Your task to perform on an android device: Open Youtube and go to "Your channel" Image 0: 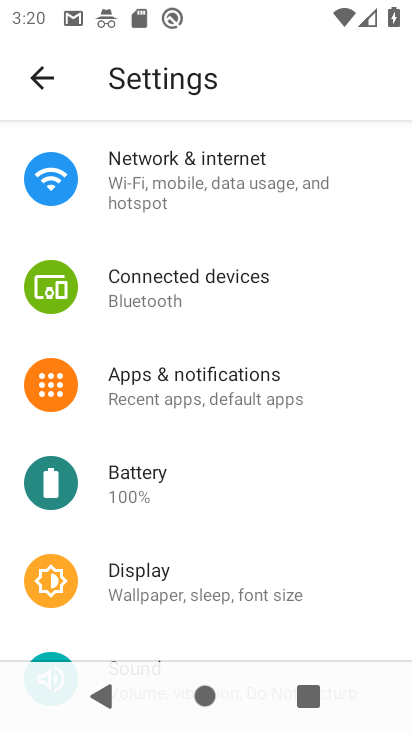
Step 0: press home button
Your task to perform on an android device: Open Youtube and go to "Your channel" Image 1: 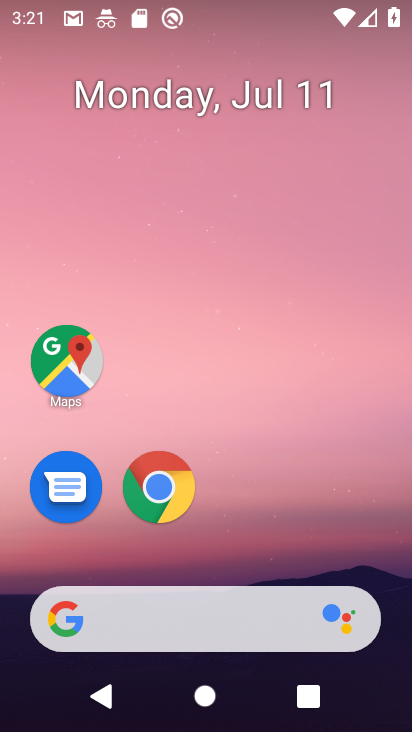
Step 1: drag from (160, 625) to (319, 3)
Your task to perform on an android device: Open Youtube and go to "Your channel" Image 2: 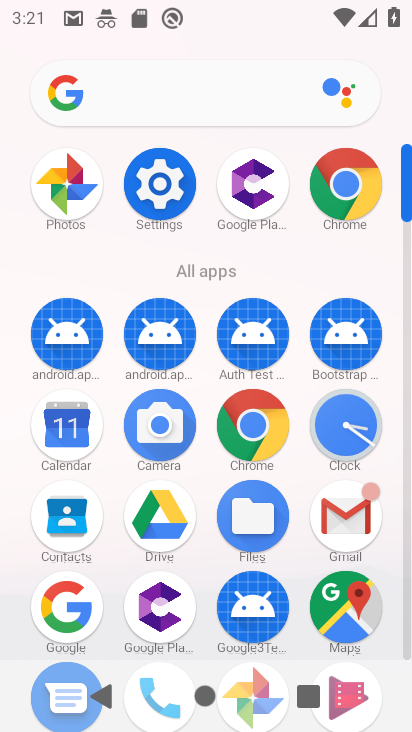
Step 2: drag from (190, 636) to (348, 98)
Your task to perform on an android device: Open Youtube and go to "Your channel" Image 3: 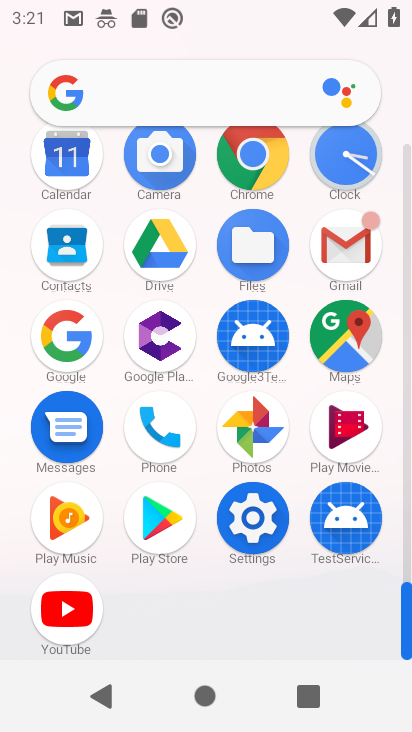
Step 3: click (72, 606)
Your task to perform on an android device: Open Youtube and go to "Your channel" Image 4: 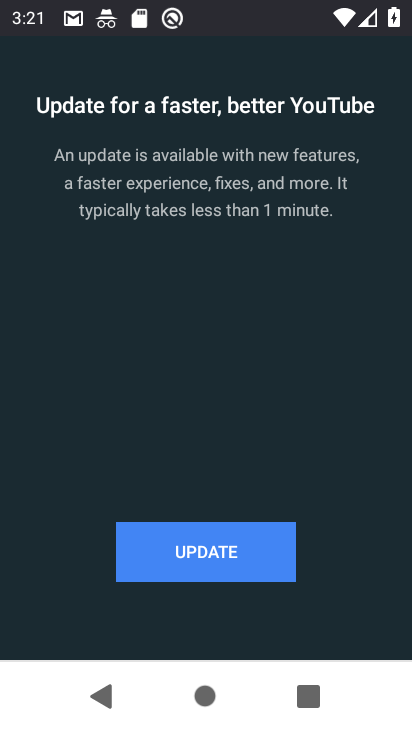
Step 4: click (221, 557)
Your task to perform on an android device: Open Youtube and go to "Your channel" Image 5: 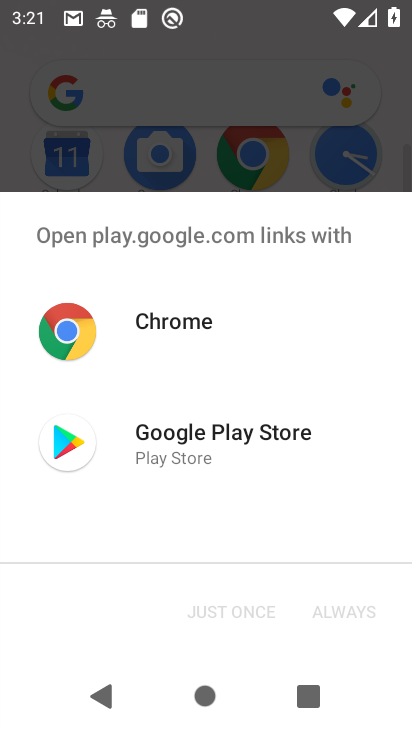
Step 5: click (187, 437)
Your task to perform on an android device: Open Youtube and go to "Your channel" Image 6: 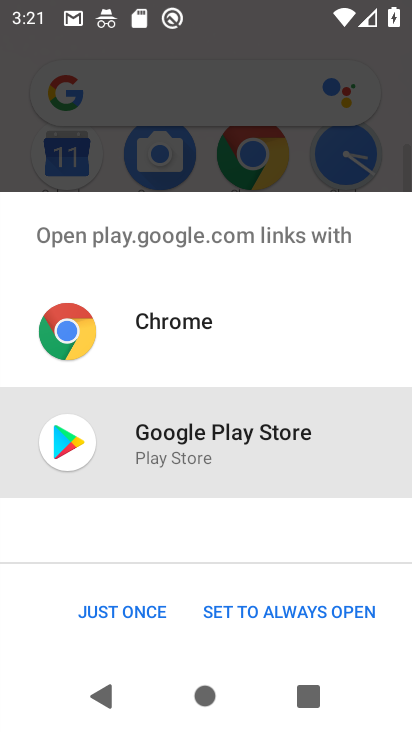
Step 6: click (143, 606)
Your task to perform on an android device: Open Youtube and go to "Your channel" Image 7: 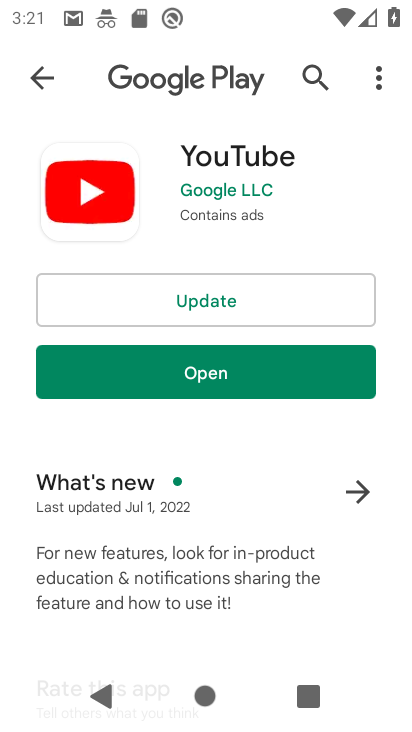
Step 7: click (207, 306)
Your task to perform on an android device: Open Youtube and go to "Your channel" Image 8: 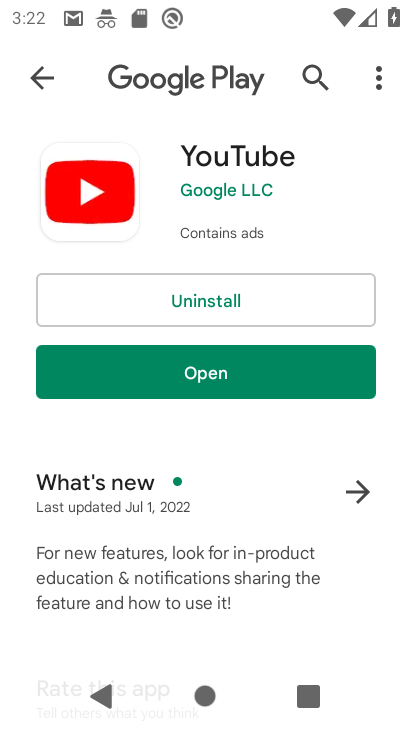
Step 8: click (201, 369)
Your task to perform on an android device: Open Youtube and go to "Your channel" Image 9: 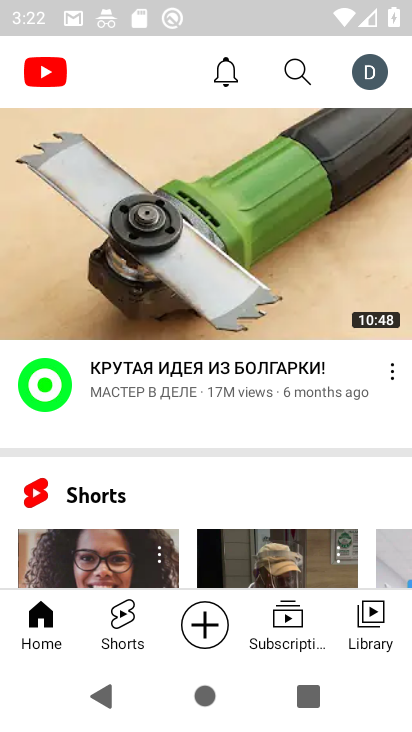
Step 9: click (367, 71)
Your task to perform on an android device: Open Youtube and go to "Your channel" Image 10: 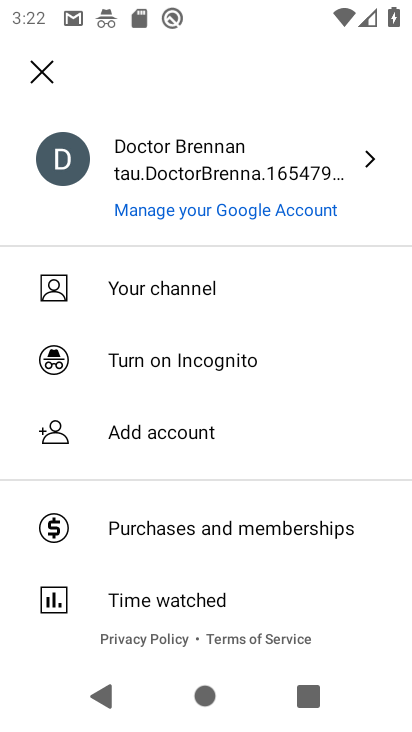
Step 10: click (174, 295)
Your task to perform on an android device: Open Youtube and go to "Your channel" Image 11: 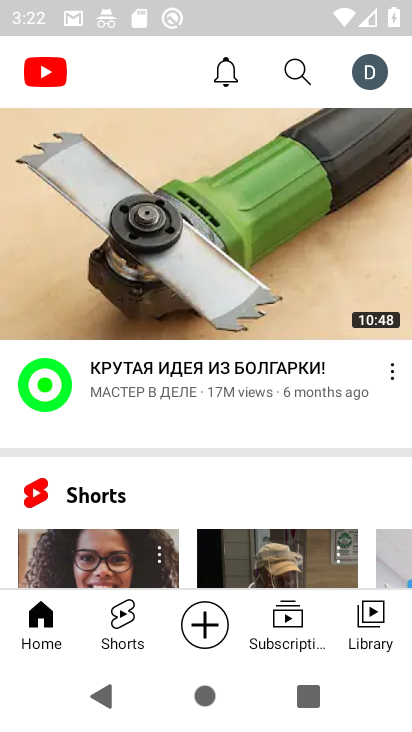
Step 11: click (366, 72)
Your task to perform on an android device: Open Youtube and go to "Your channel" Image 12: 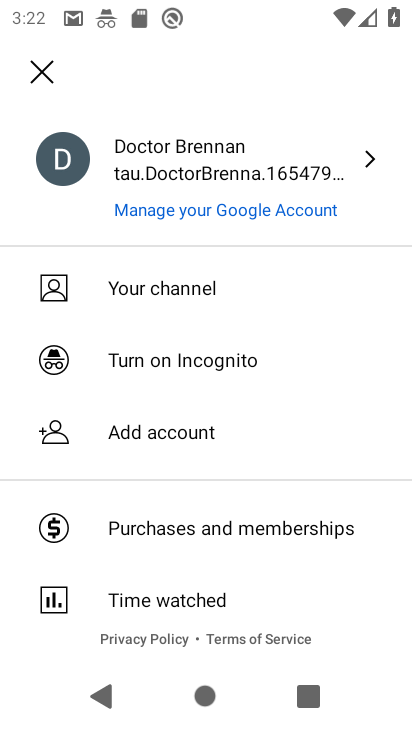
Step 12: click (170, 286)
Your task to perform on an android device: Open Youtube and go to "Your channel" Image 13: 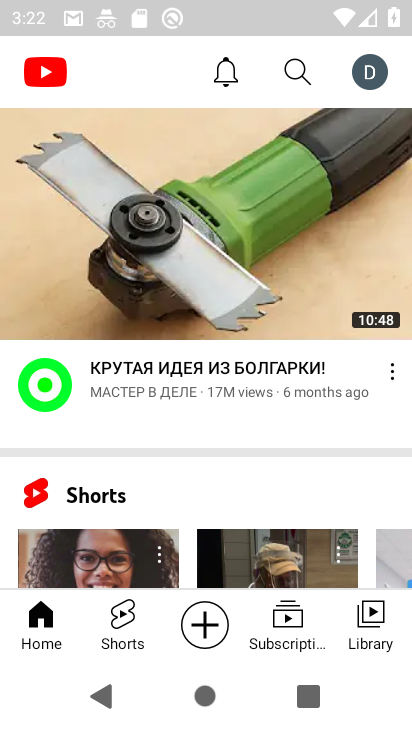
Step 13: click (363, 82)
Your task to perform on an android device: Open Youtube and go to "Your channel" Image 14: 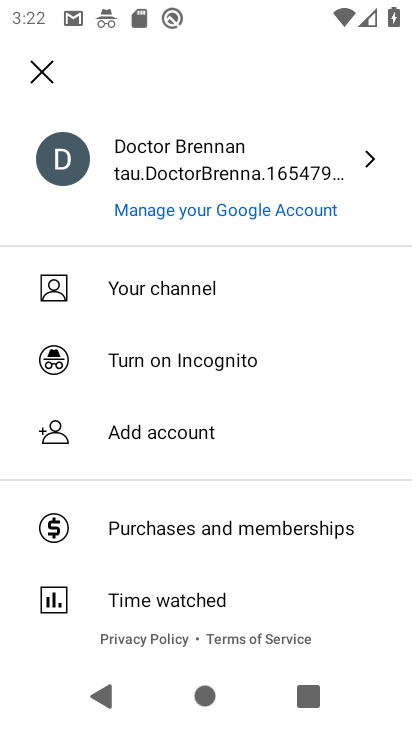
Step 14: drag from (193, 582) to (301, 221)
Your task to perform on an android device: Open Youtube and go to "Your channel" Image 15: 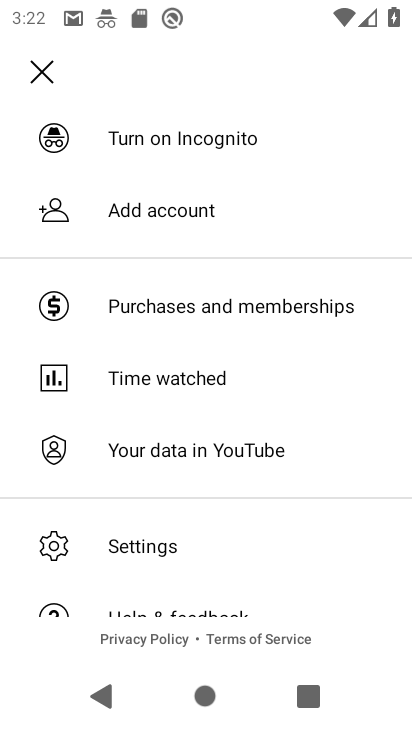
Step 15: drag from (268, 213) to (204, 599)
Your task to perform on an android device: Open Youtube and go to "Your channel" Image 16: 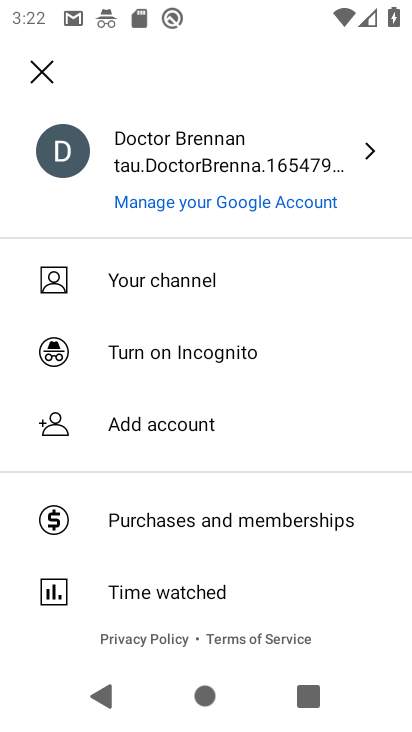
Step 16: click (175, 274)
Your task to perform on an android device: Open Youtube and go to "Your channel" Image 17: 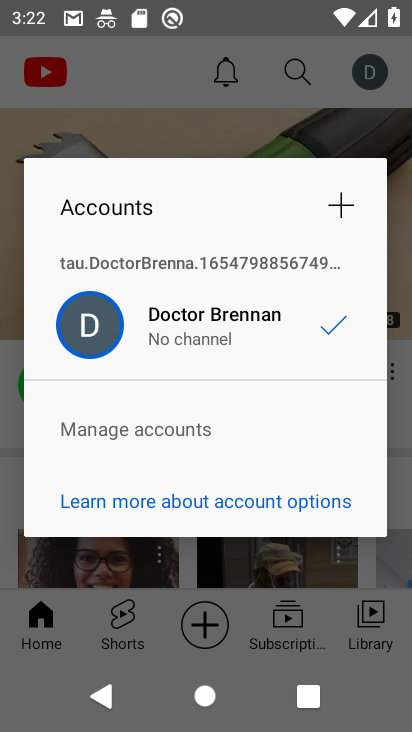
Step 17: task complete